Your task to perform on an android device: Open the web browser Image 0: 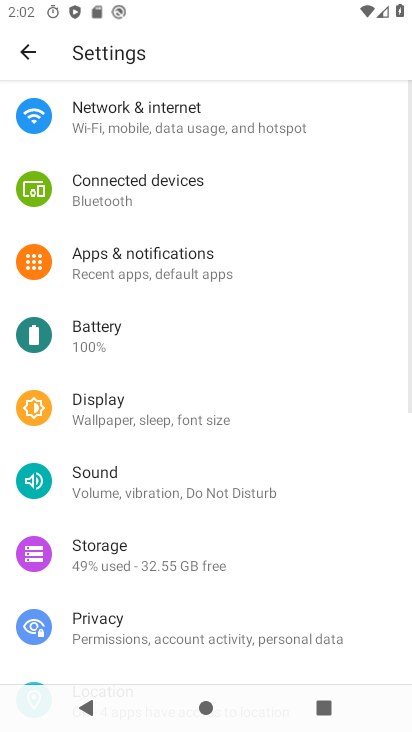
Step 0: press home button
Your task to perform on an android device: Open the web browser Image 1: 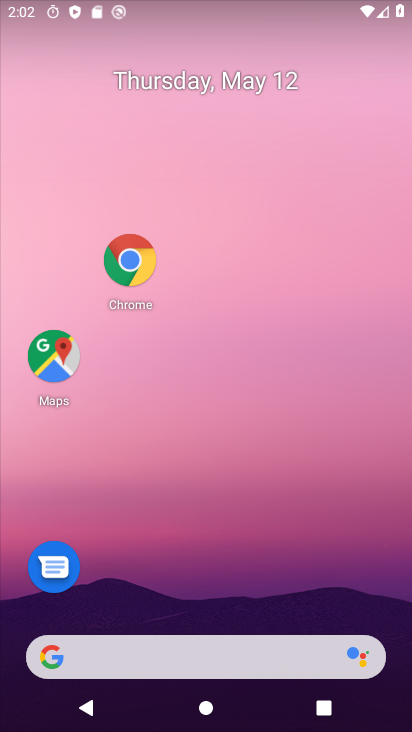
Step 1: click (131, 266)
Your task to perform on an android device: Open the web browser Image 2: 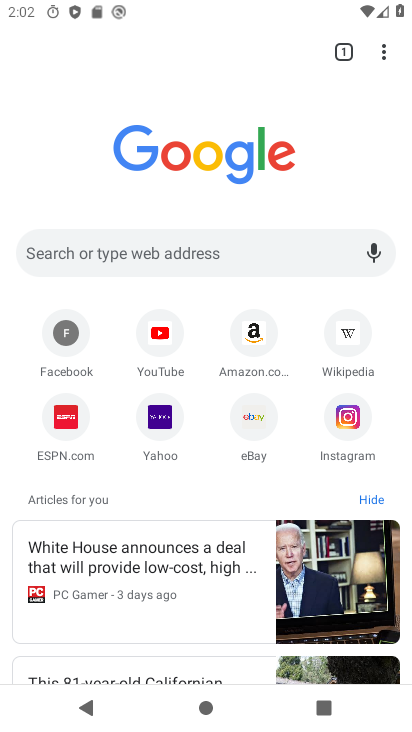
Step 2: task complete